Your task to perform on an android device: open a new tab in the chrome app Image 0: 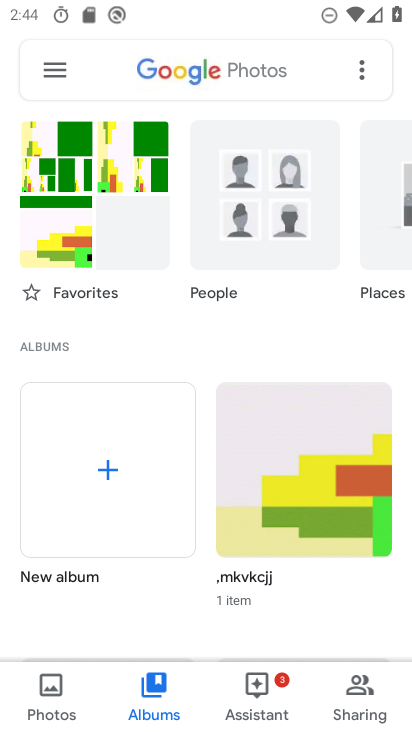
Step 0: press home button
Your task to perform on an android device: open a new tab in the chrome app Image 1: 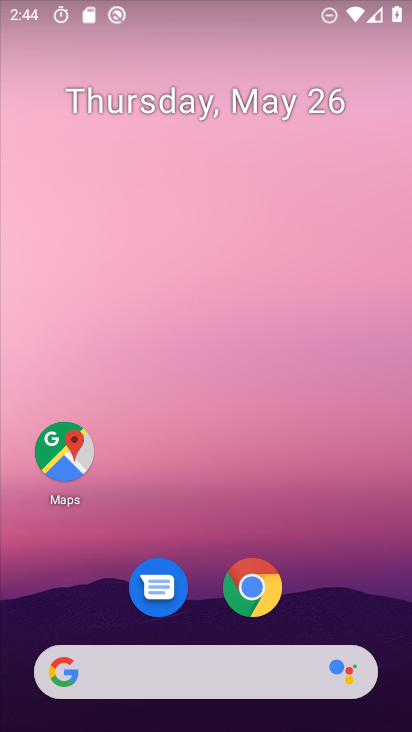
Step 1: click (249, 583)
Your task to perform on an android device: open a new tab in the chrome app Image 2: 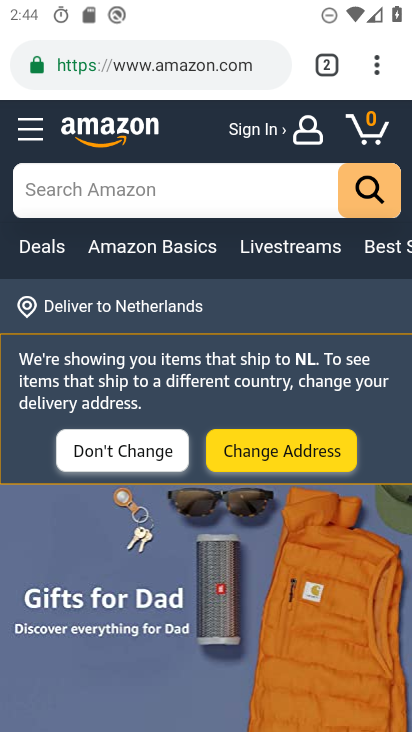
Step 2: task complete